Your task to perform on an android device: Go to privacy settings Image 0: 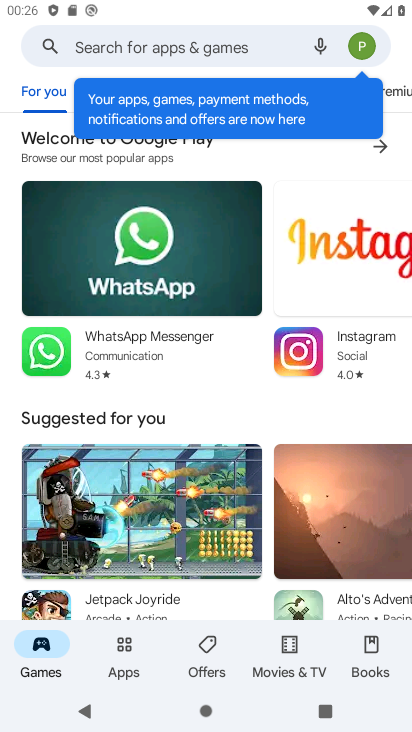
Step 0: press home button
Your task to perform on an android device: Go to privacy settings Image 1: 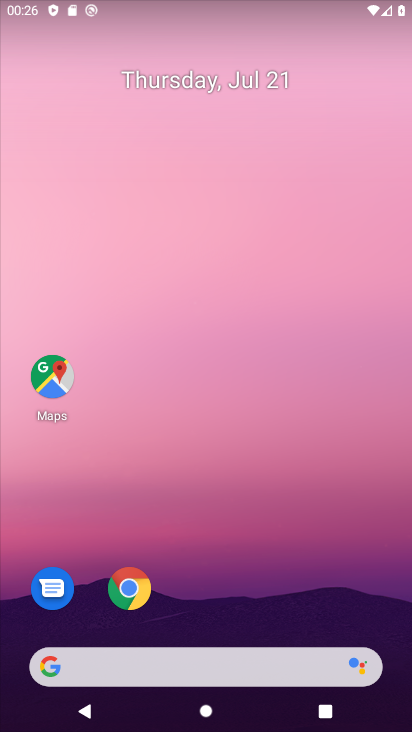
Step 1: drag from (312, 505) to (280, 13)
Your task to perform on an android device: Go to privacy settings Image 2: 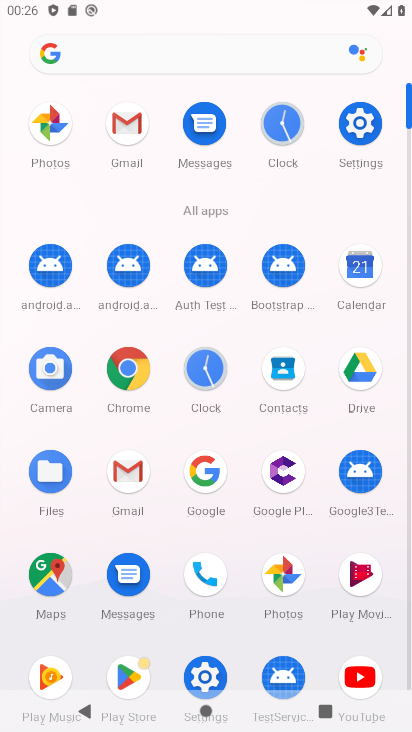
Step 2: click (365, 109)
Your task to perform on an android device: Go to privacy settings Image 3: 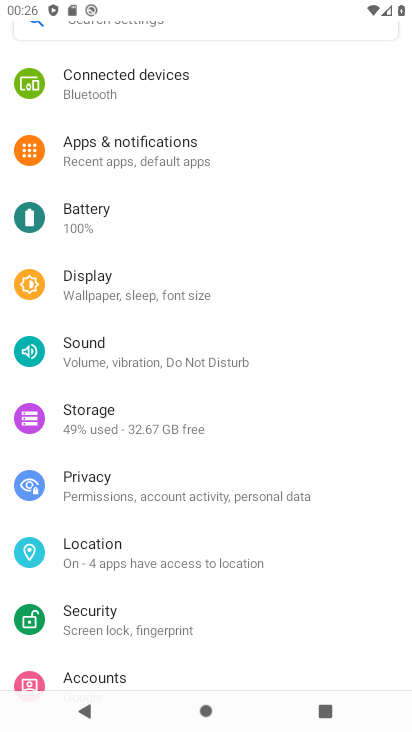
Step 3: click (42, 489)
Your task to perform on an android device: Go to privacy settings Image 4: 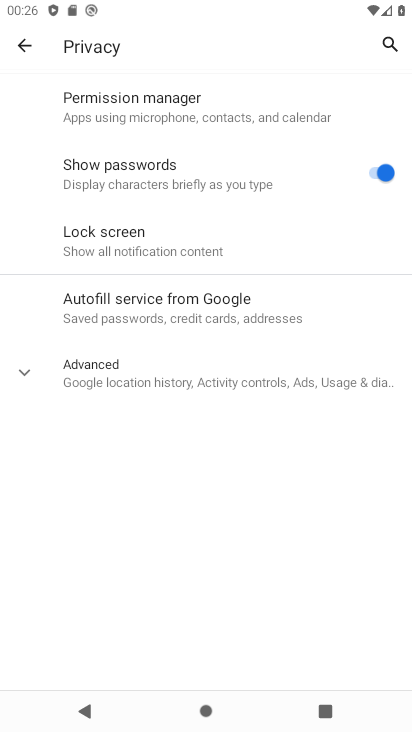
Step 4: task complete